Your task to perform on an android device: check battery use Image 0: 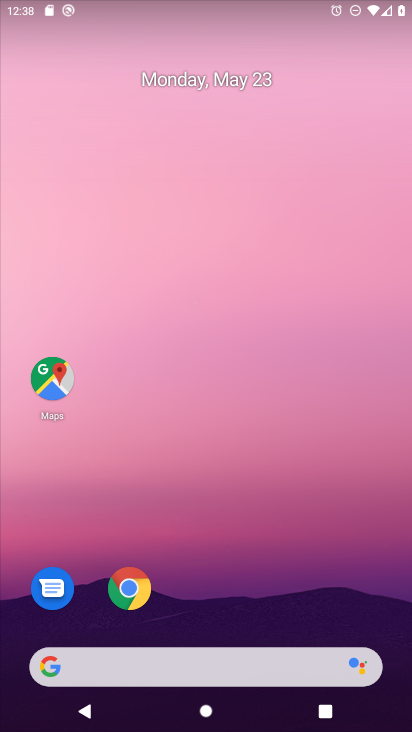
Step 0: drag from (278, 679) to (166, 93)
Your task to perform on an android device: check battery use Image 1: 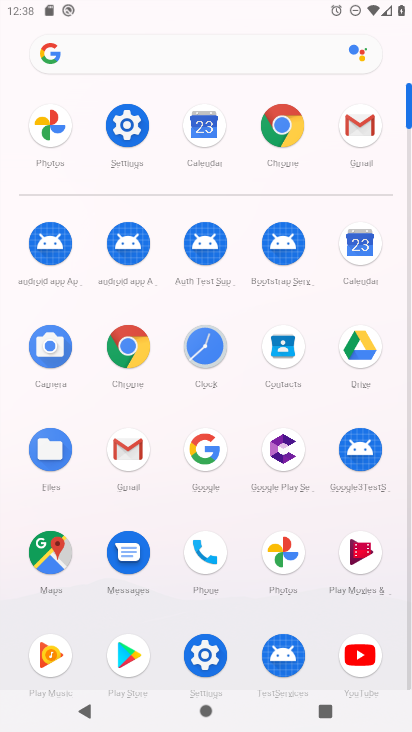
Step 1: click (114, 152)
Your task to perform on an android device: check battery use Image 2: 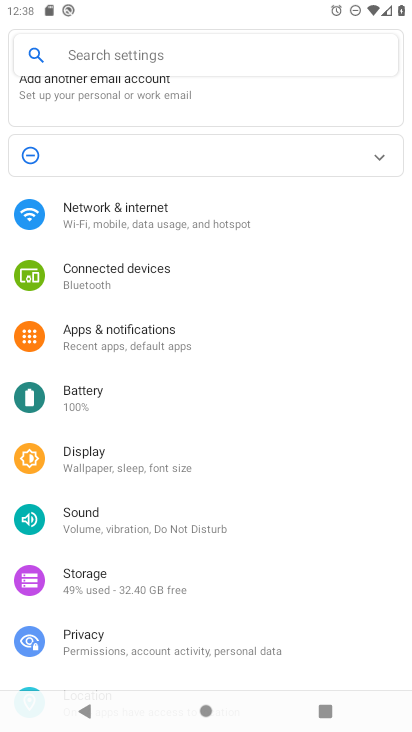
Step 2: click (114, 406)
Your task to perform on an android device: check battery use Image 3: 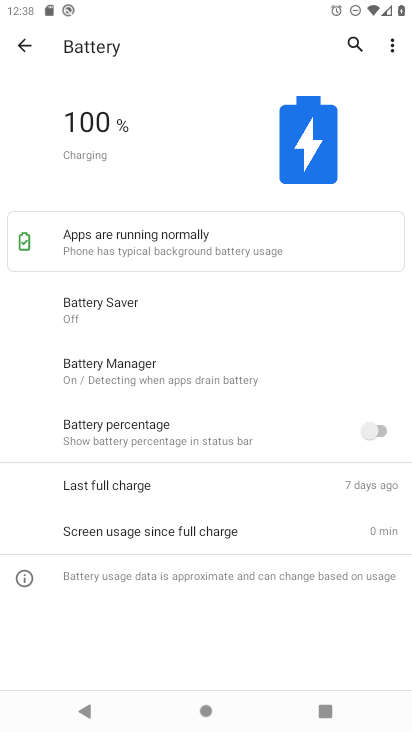
Step 3: task complete